Your task to perform on an android device: Go to network settings Image 0: 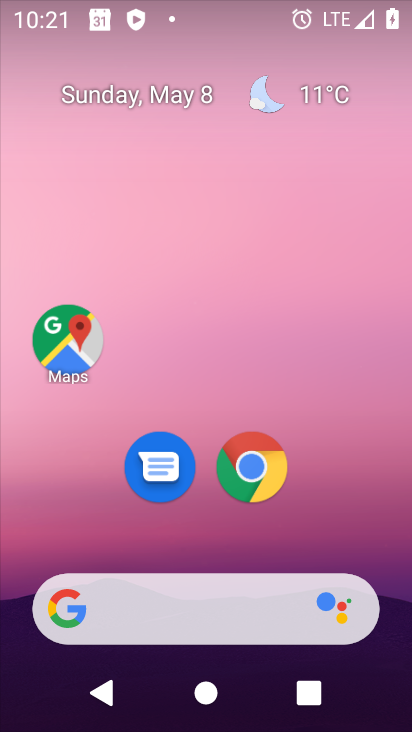
Step 0: drag from (149, 730) to (247, 256)
Your task to perform on an android device: Go to network settings Image 1: 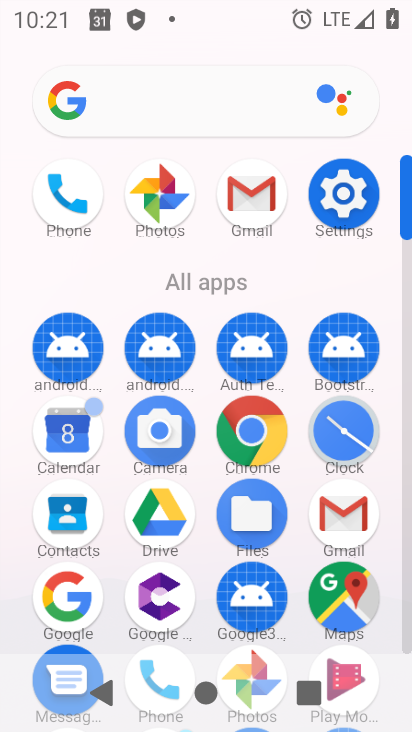
Step 1: click (332, 210)
Your task to perform on an android device: Go to network settings Image 2: 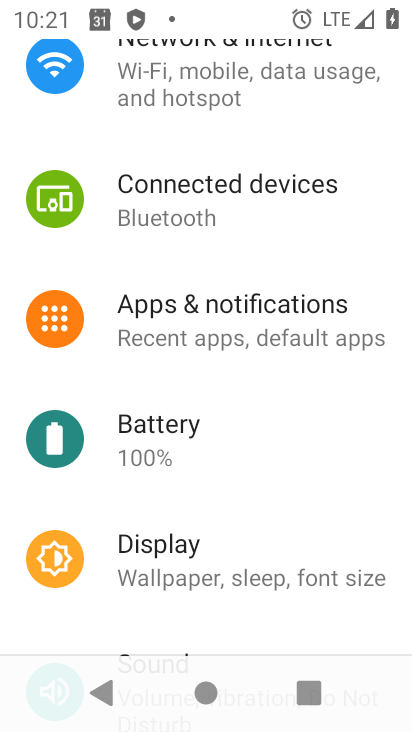
Step 2: drag from (221, 174) to (219, 642)
Your task to perform on an android device: Go to network settings Image 3: 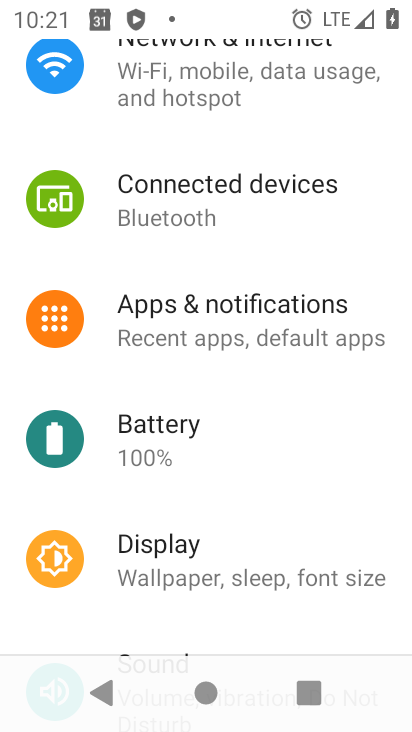
Step 3: drag from (199, 130) to (209, 586)
Your task to perform on an android device: Go to network settings Image 4: 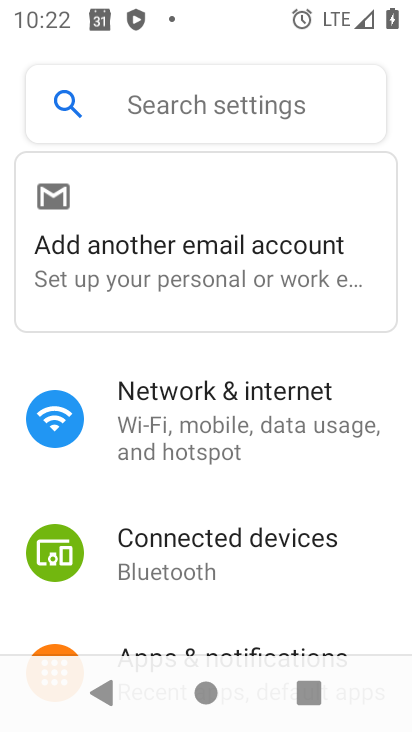
Step 4: click (239, 408)
Your task to perform on an android device: Go to network settings Image 5: 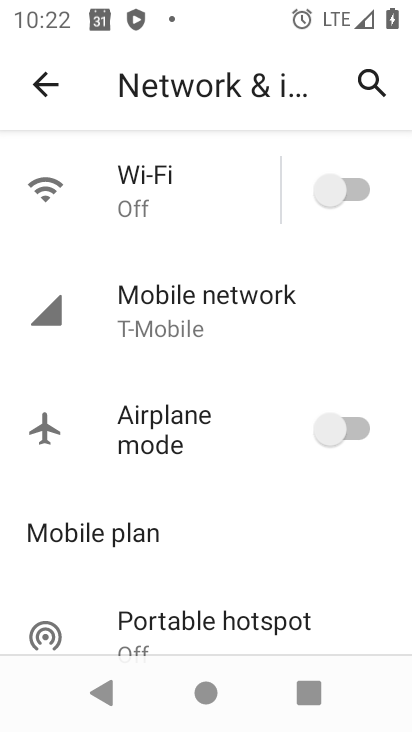
Step 5: click (254, 296)
Your task to perform on an android device: Go to network settings Image 6: 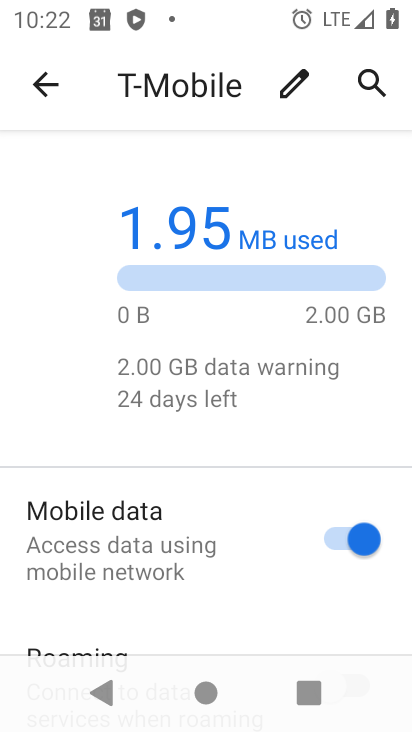
Step 6: task complete